Your task to perform on an android device: Open ESPN.com Image 0: 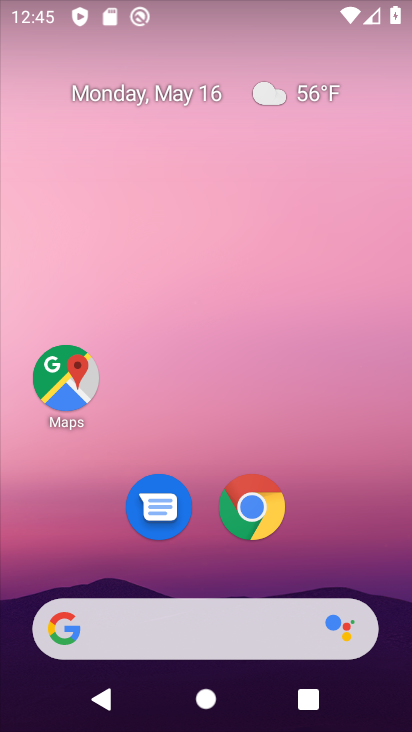
Step 0: click (242, 515)
Your task to perform on an android device: Open ESPN.com Image 1: 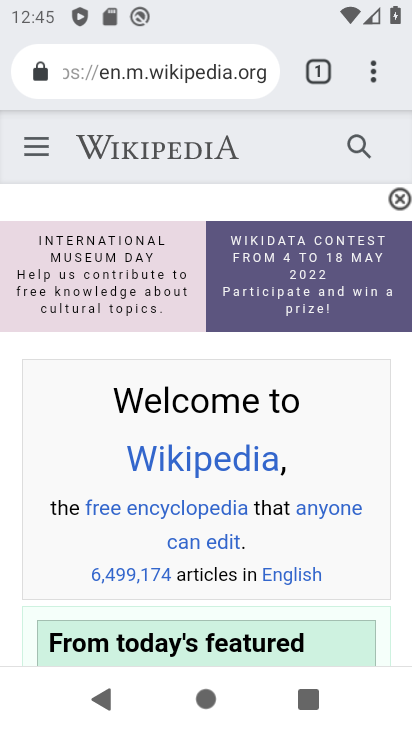
Step 1: click (310, 76)
Your task to perform on an android device: Open ESPN.com Image 2: 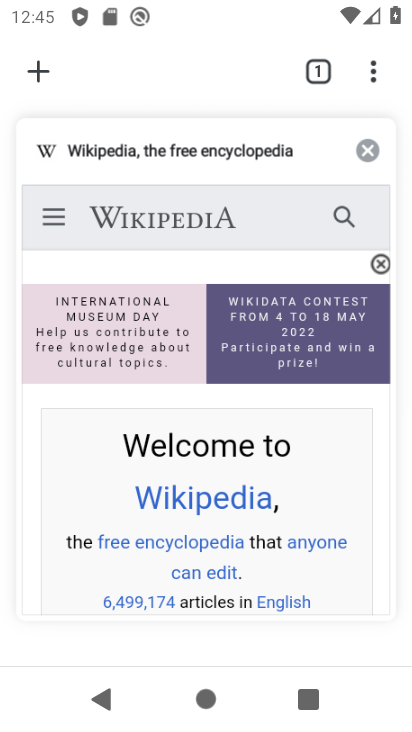
Step 2: click (50, 76)
Your task to perform on an android device: Open ESPN.com Image 3: 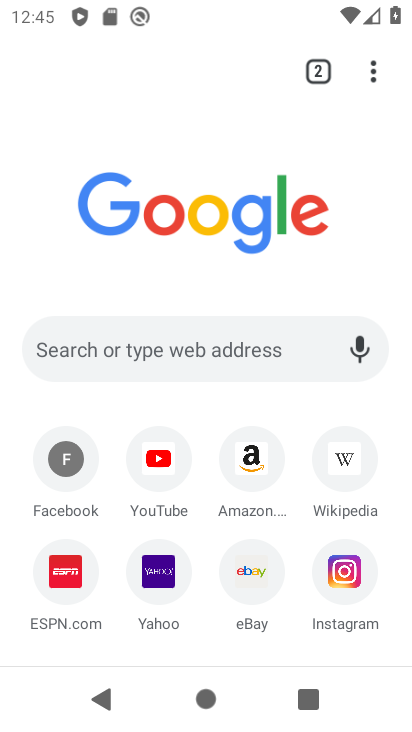
Step 3: click (171, 347)
Your task to perform on an android device: Open ESPN.com Image 4: 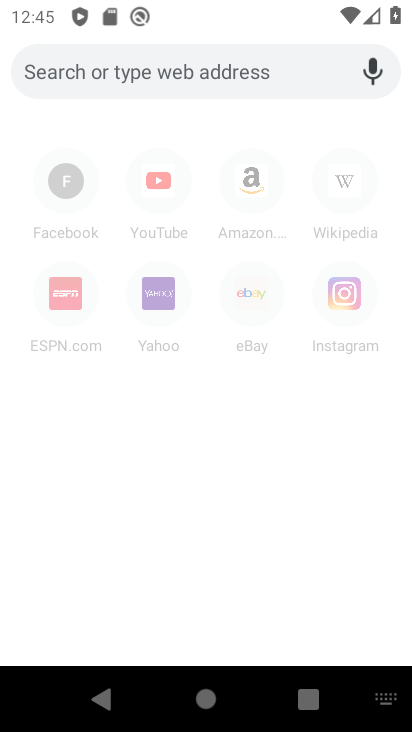
Step 4: type "ESPN.com"
Your task to perform on an android device: Open ESPN.com Image 5: 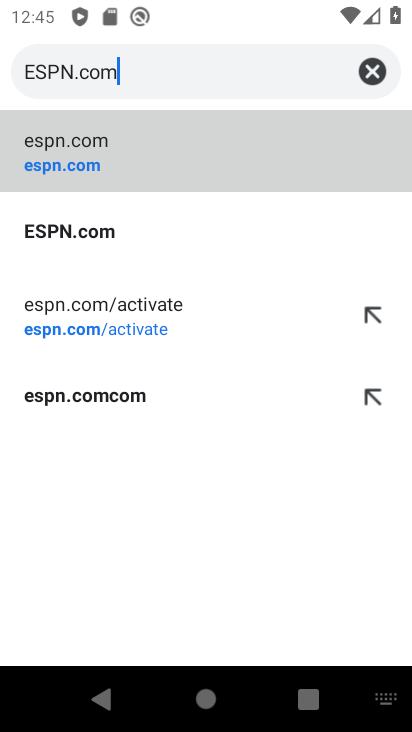
Step 5: click (111, 172)
Your task to perform on an android device: Open ESPN.com Image 6: 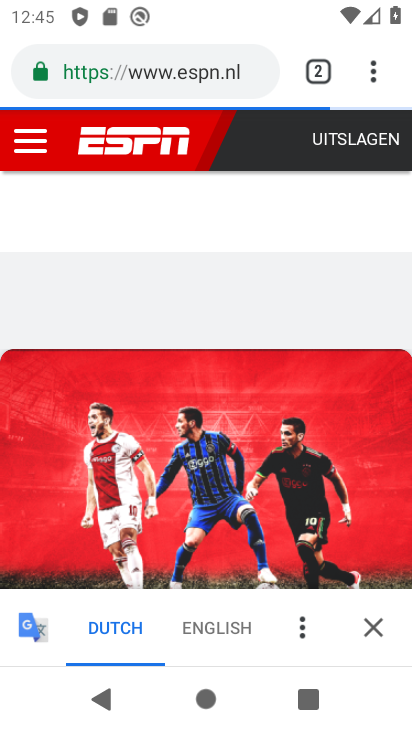
Step 6: task complete